Your task to perform on an android device: check out phone information Image 0: 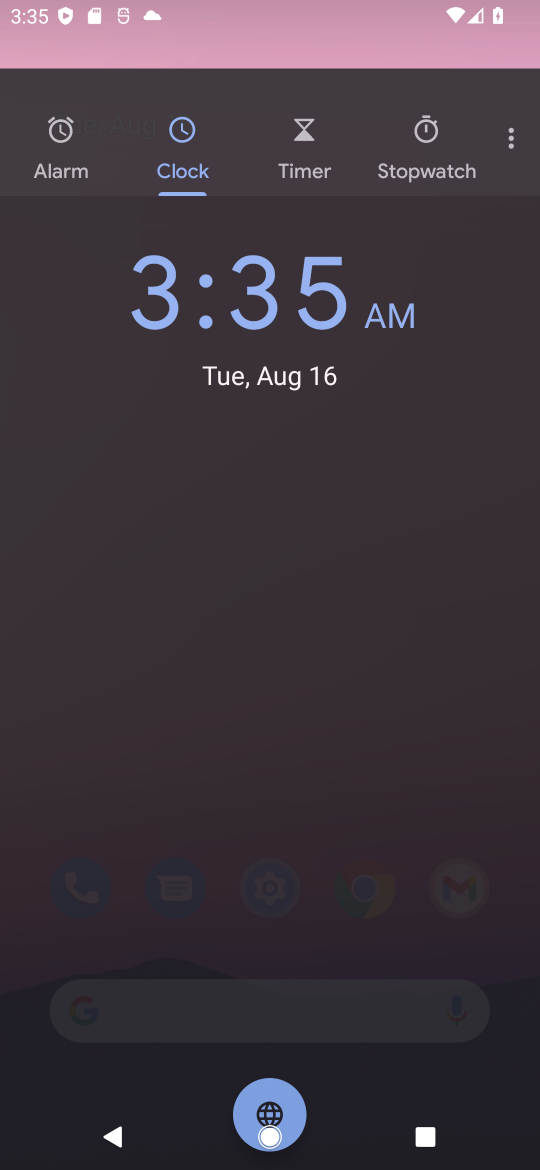
Step 0: press home button
Your task to perform on an android device: check out phone information Image 1: 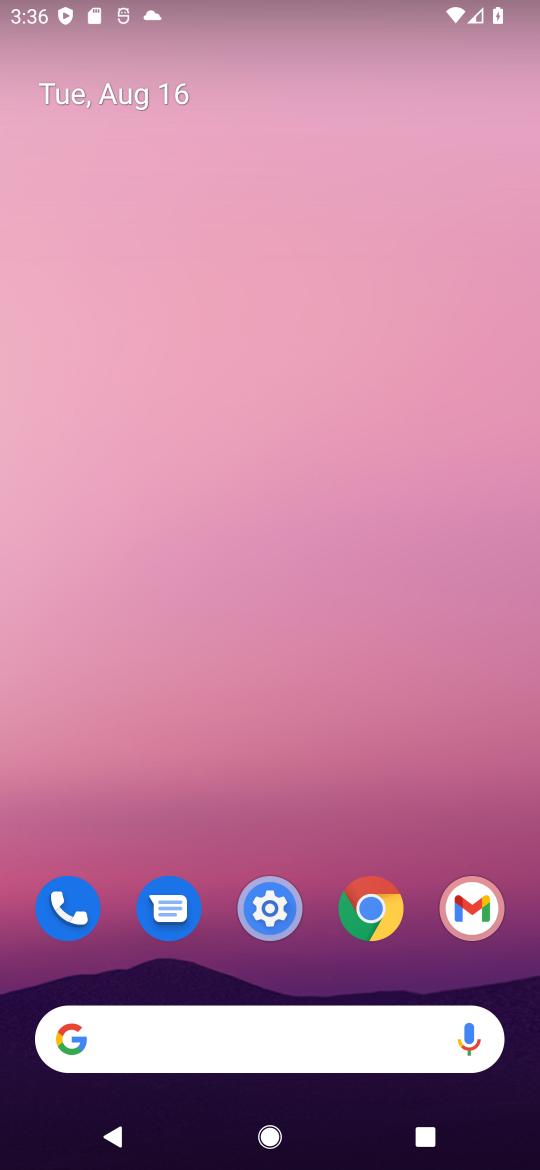
Step 1: click (274, 907)
Your task to perform on an android device: check out phone information Image 2: 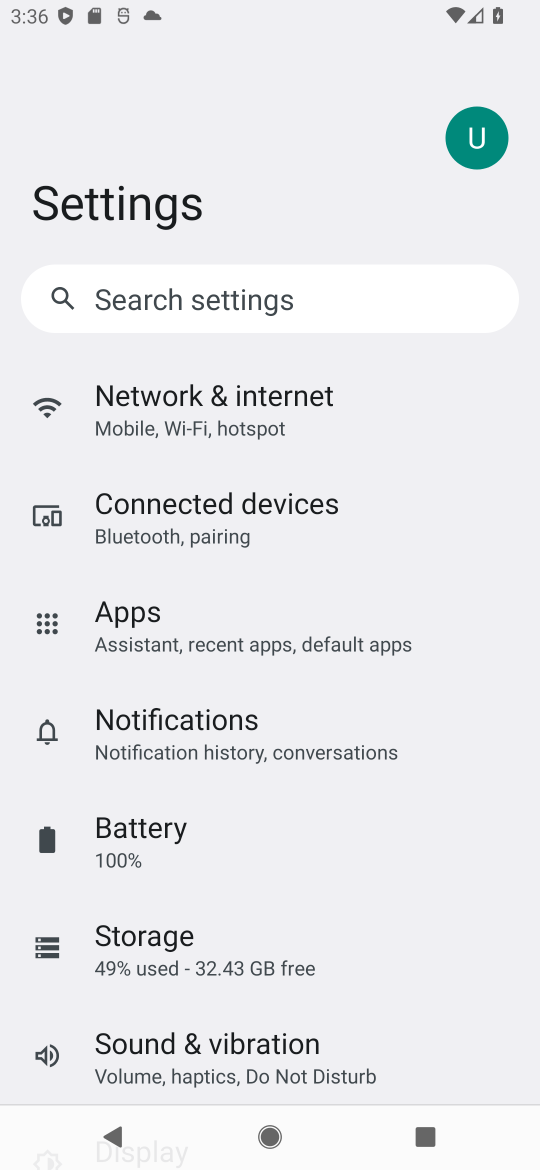
Step 2: drag from (279, 998) to (331, 195)
Your task to perform on an android device: check out phone information Image 3: 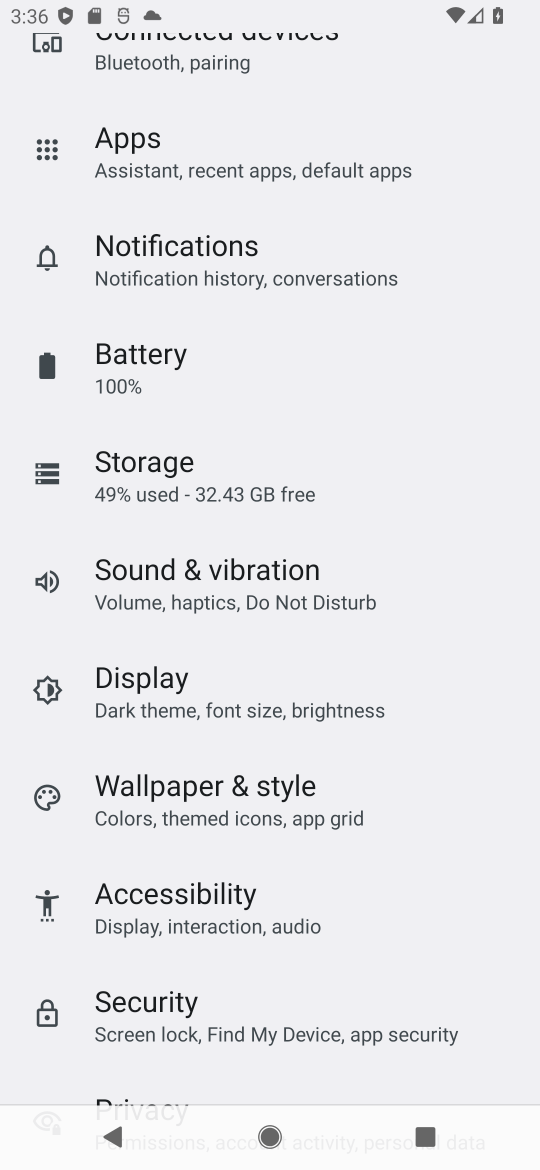
Step 3: drag from (276, 1001) to (272, 13)
Your task to perform on an android device: check out phone information Image 4: 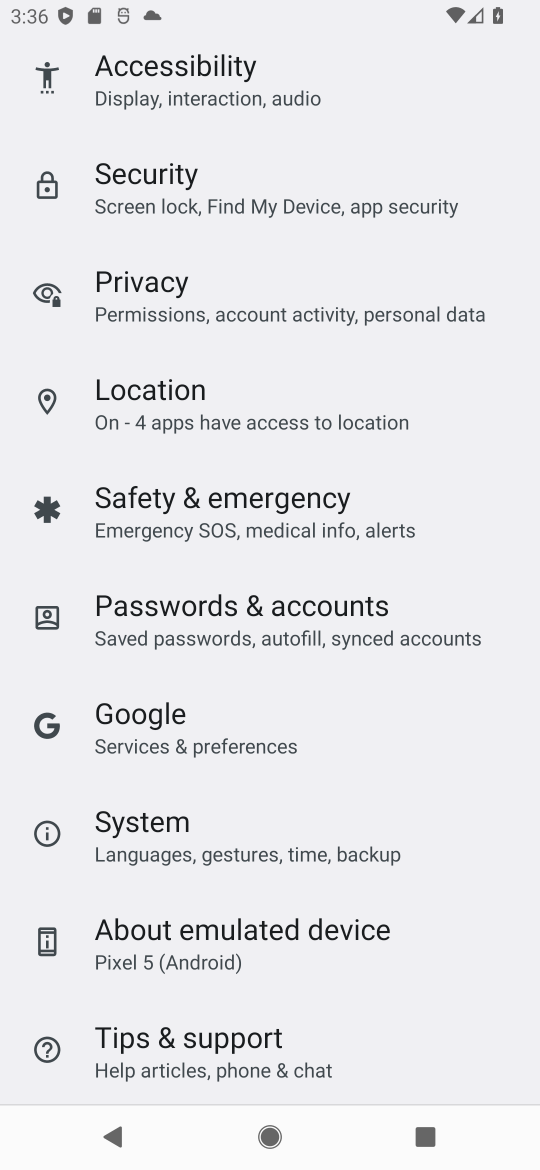
Step 4: click (251, 940)
Your task to perform on an android device: check out phone information Image 5: 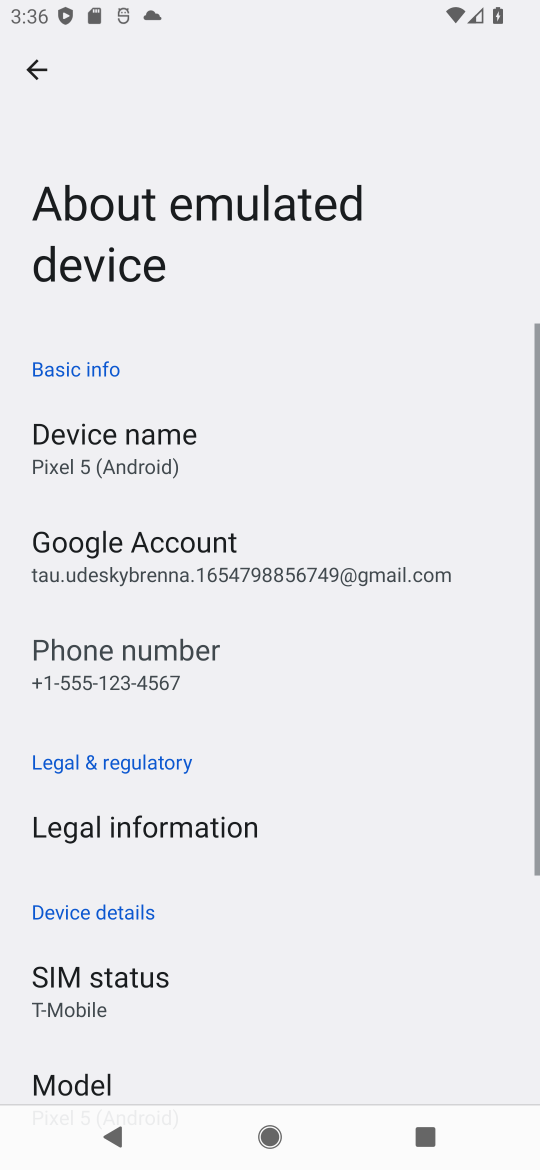
Step 5: task complete